Your task to perform on an android device: turn notification dots off Image 0: 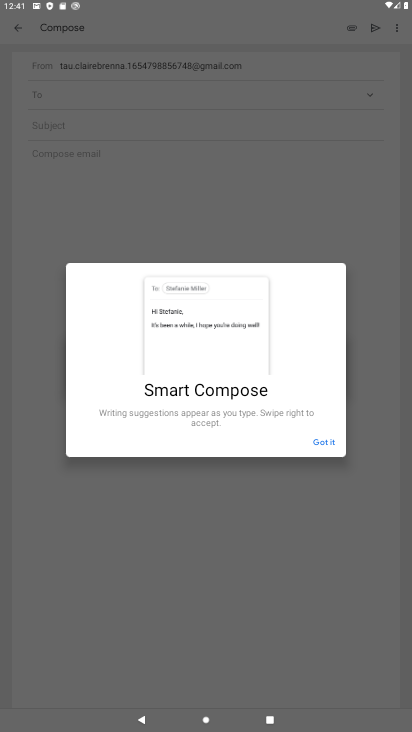
Step 0: press home button
Your task to perform on an android device: turn notification dots off Image 1: 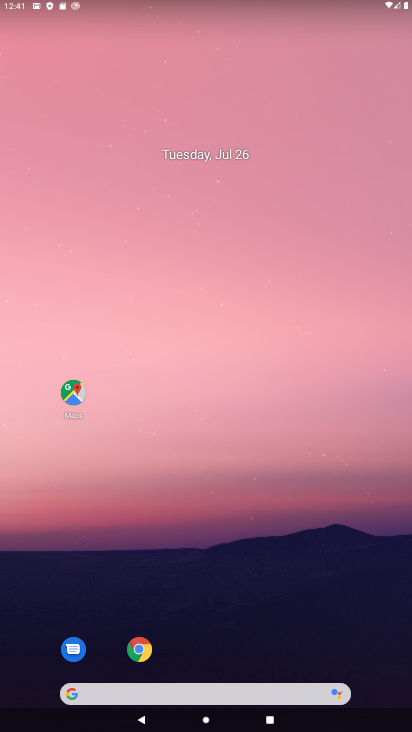
Step 1: drag from (372, 570) to (294, 60)
Your task to perform on an android device: turn notification dots off Image 2: 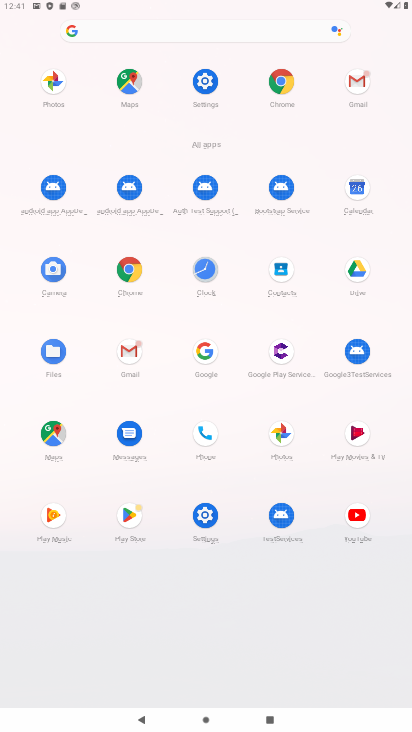
Step 2: click (209, 82)
Your task to perform on an android device: turn notification dots off Image 3: 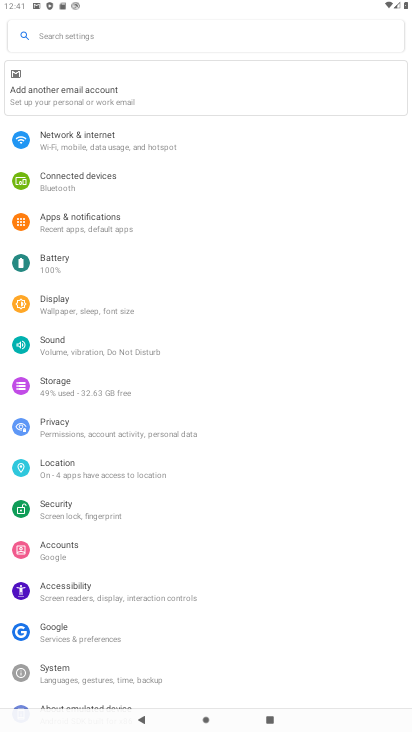
Step 3: click (117, 217)
Your task to perform on an android device: turn notification dots off Image 4: 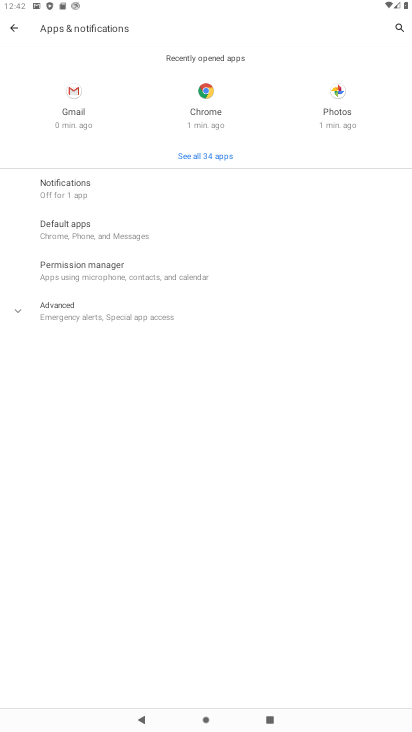
Step 4: click (114, 188)
Your task to perform on an android device: turn notification dots off Image 5: 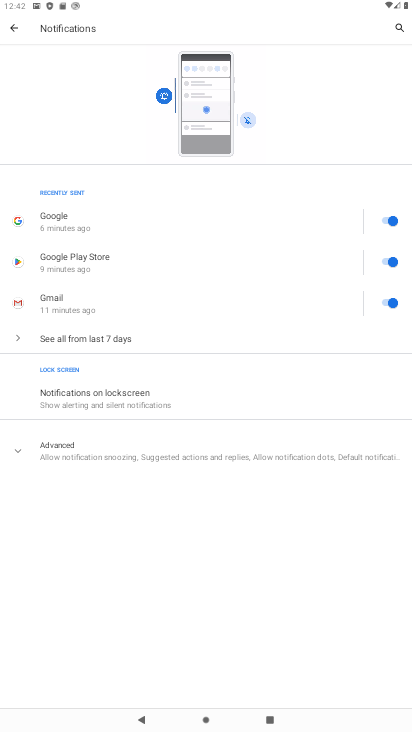
Step 5: click (129, 441)
Your task to perform on an android device: turn notification dots off Image 6: 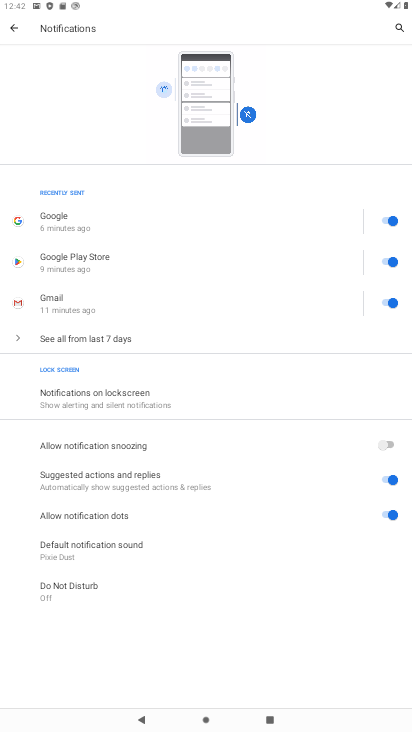
Step 6: click (391, 516)
Your task to perform on an android device: turn notification dots off Image 7: 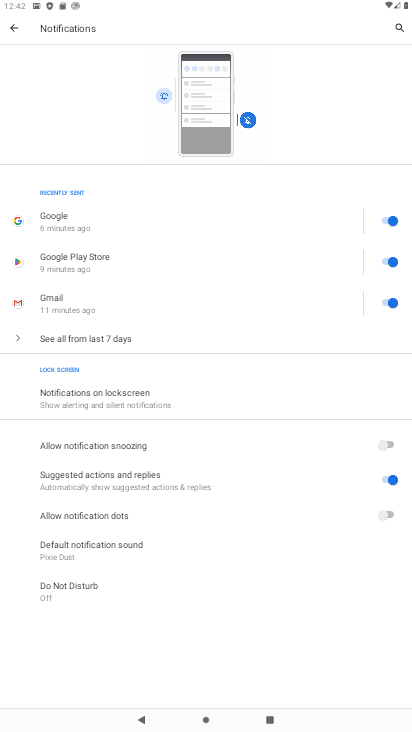
Step 7: task complete